Your task to perform on an android device: Go to privacy settings Image 0: 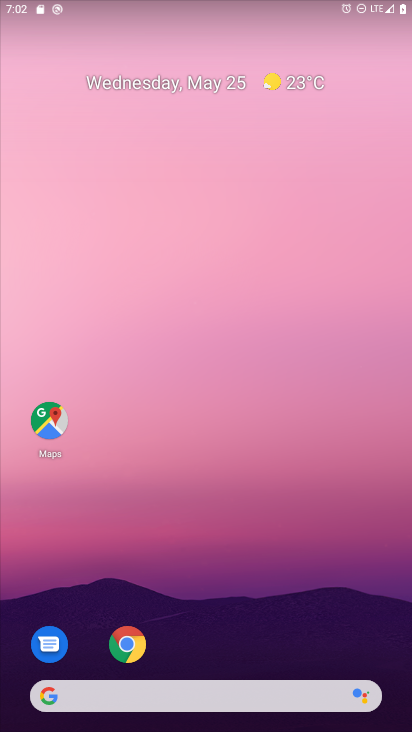
Step 0: drag from (353, 618) to (285, 51)
Your task to perform on an android device: Go to privacy settings Image 1: 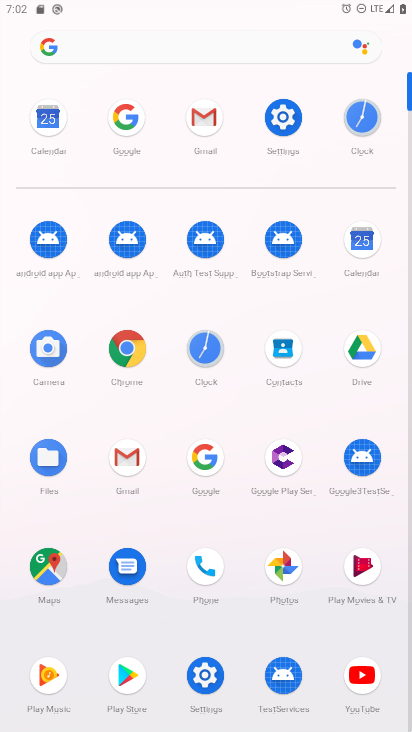
Step 1: click (288, 126)
Your task to perform on an android device: Go to privacy settings Image 2: 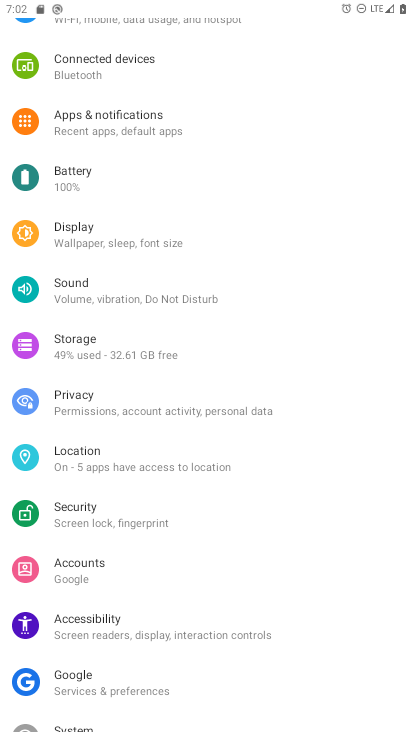
Step 2: click (135, 403)
Your task to perform on an android device: Go to privacy settings Image 3: 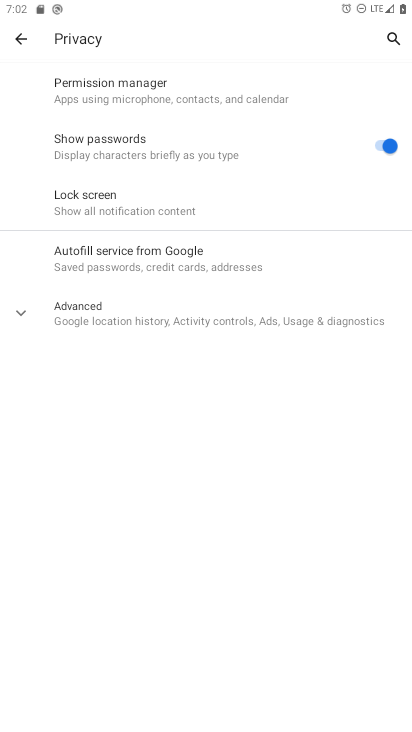
Step 3: task complete